Your task to perform on an android device: Open calendar and show me the second week of next month Image 0: 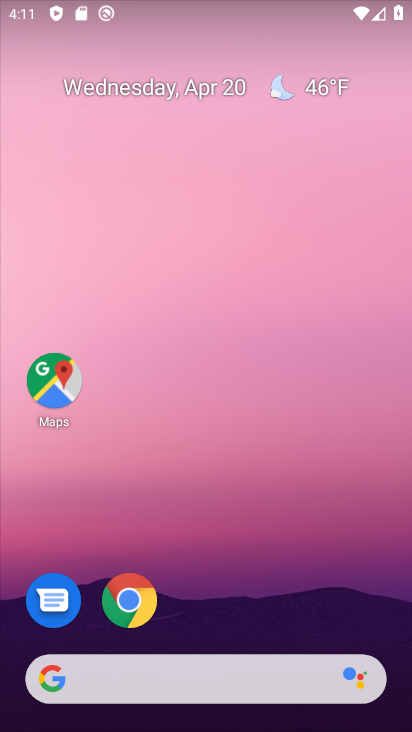
Step 0: drag from (203, 208) to (196, 140)
Your task to perform on an android device: Open calendar and show me the second week of next month Image 1: 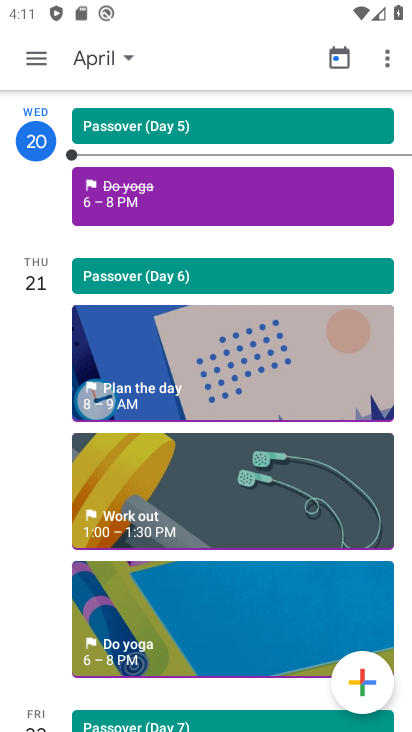
Step 1: press home button
Your task to perform on an android device: Open calendar and show me the second week of next month Image 2: 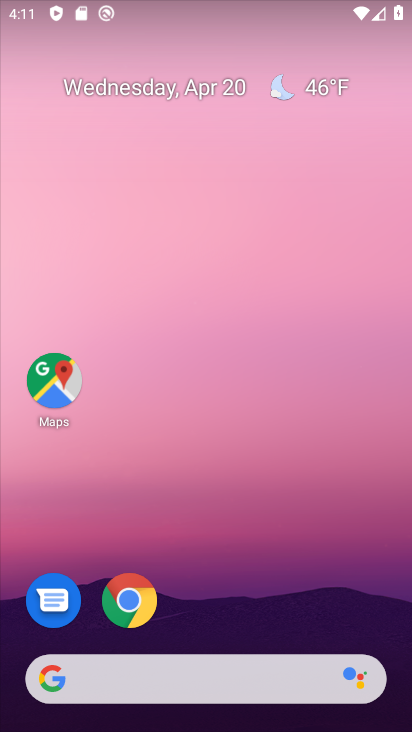
Step 2: drag from (198, 628) to (225, 217)
Your task to perform on an android device: Open calendar and show me the second week of next month Image 3: 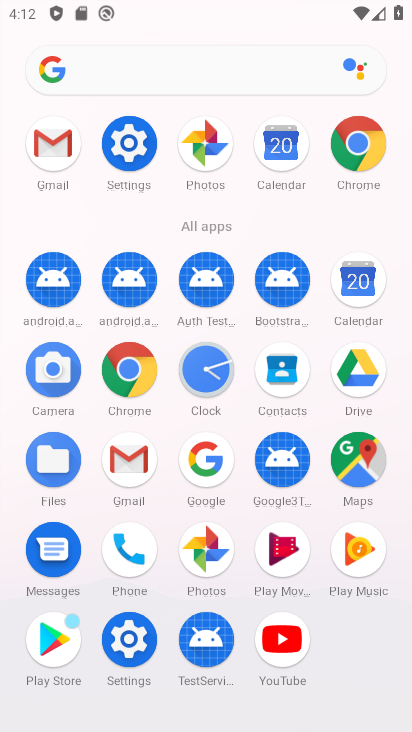
Step 3: click (357, 285)
Your task to perform on an android device: Open calendar and show me the second week of next month Image 4: 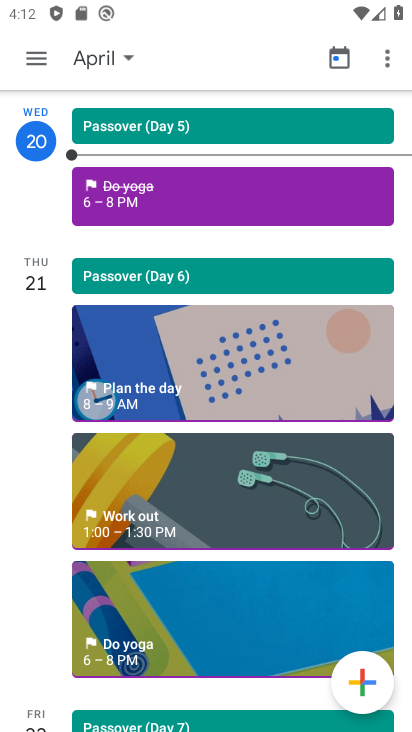
Step 4: click (23, 68)
Your task to perform on an android device: Open calendar and show me the second week of next month Image 5: 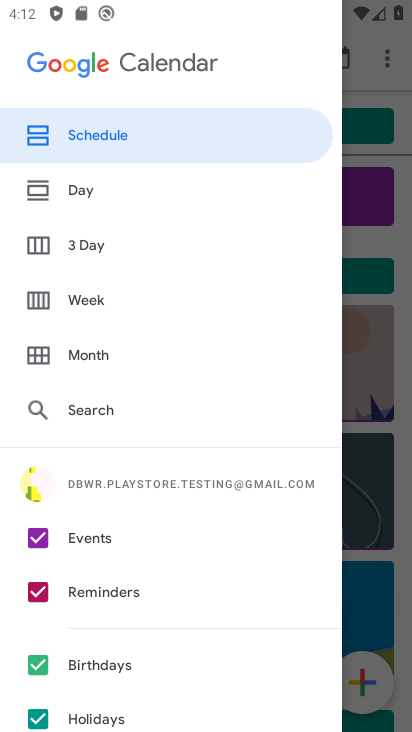
Step 5: click (49, 297)
Your task to perform on an android device: Open calendar and show me the second week of next month Image 6: 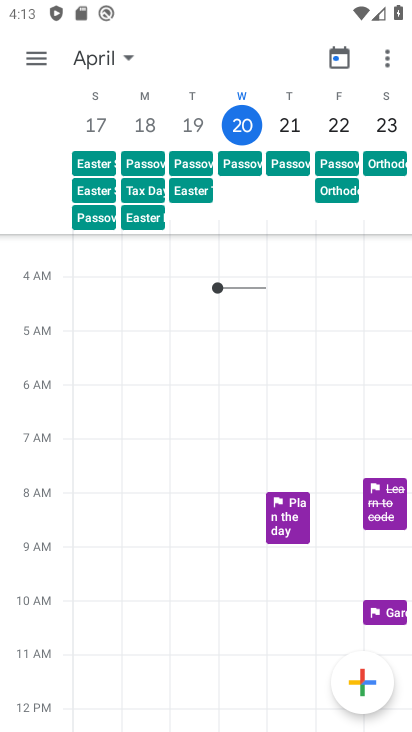
Step 6: drag from (383, 108) to (22, 108)
Your task to perform on an android device: Open calendar and show me the second week of next month Image 7: 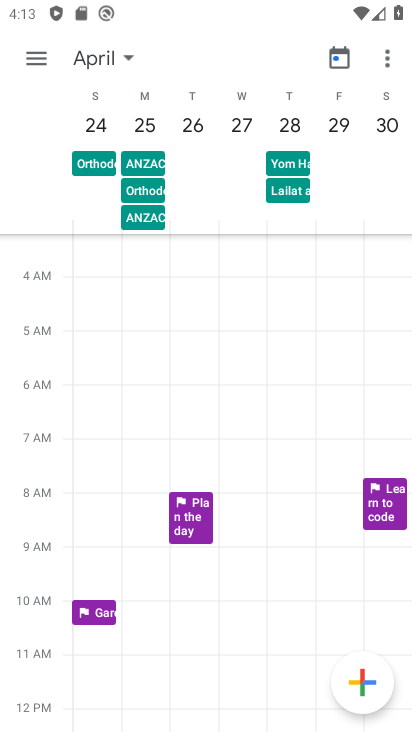
Step 7: drag from (386, 120) to (46, 113)
Your task to perform on an android device: Open calendar and show me the second week of next month Image 8: 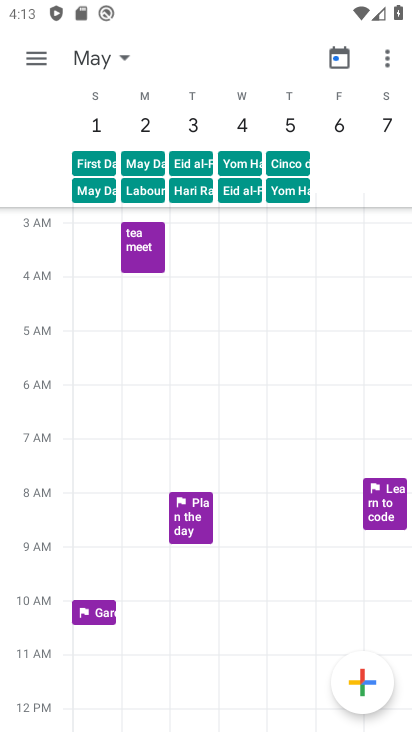
Step 8: drag from (302, 122) to (54, 122)
Your task to perform on an android device: Open calendar and show me the second week of next month Image 9: 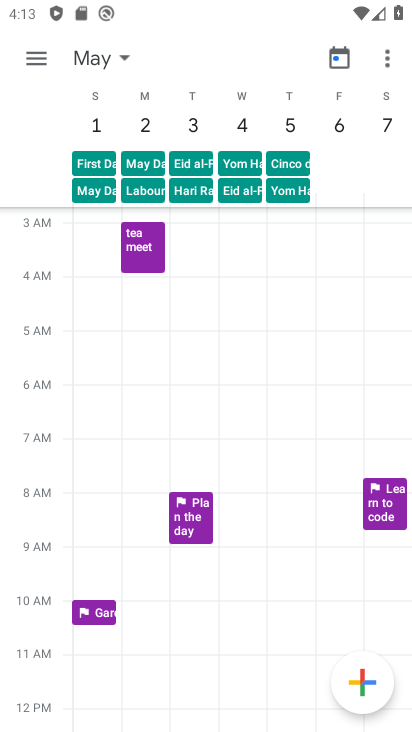
Step 9: drag from (253, 118) to (30, 118)
Your task to perform on an android device: Open calendar and show me the second week of next month Image 10: 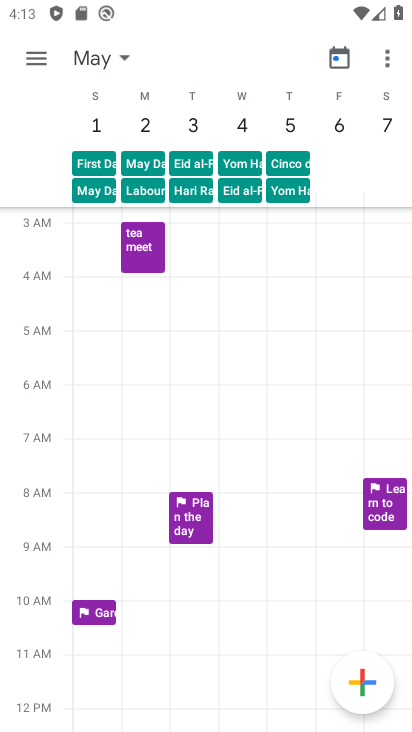
Step 10: drag from (380, 115) to (52, 109)
Your task to perform on an android device: Open calendar and show me the second week of next month Image 11: 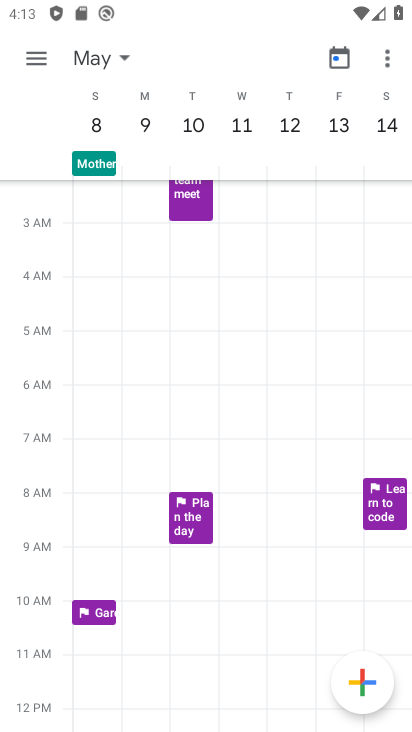
Step 11: click (93, 120)
Your task to perform on an android device: Open calendar and show me the second week of next month Image 12: 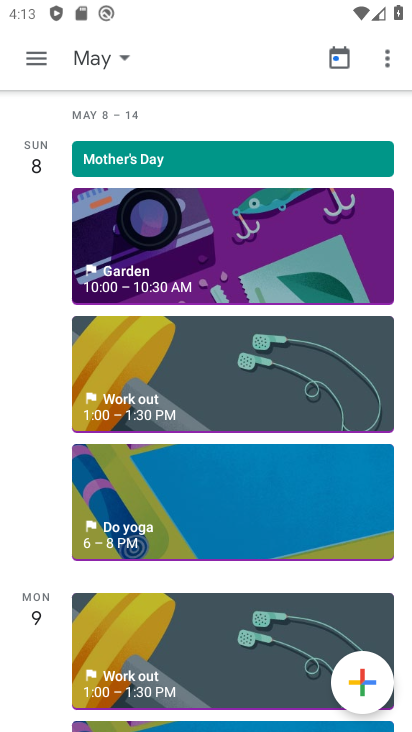
Step 12: task complete